Your task to perform on an android device: open app "DoorDash - Food Delivery" (install if not already installed) Image 0: 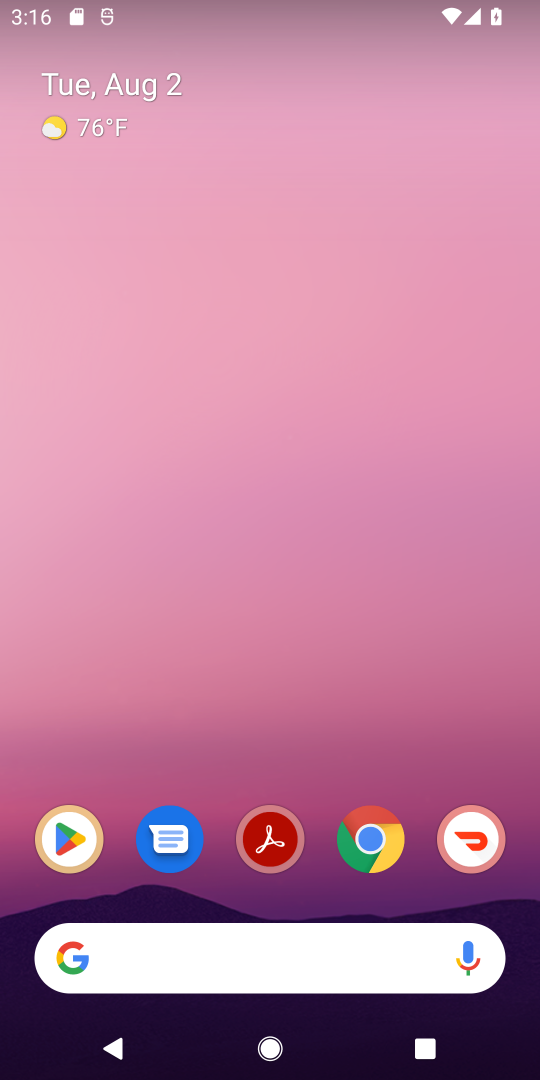
Step 0: click (479, 847)
Your task to perform on an android device: open app "DoorDash - Food Delivery" (install if not already installed) Image 1: 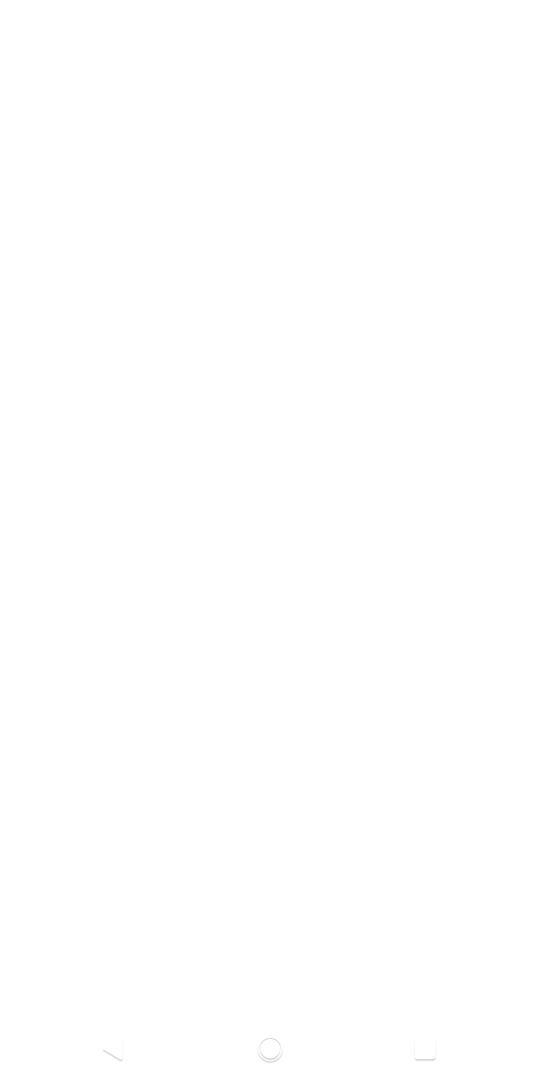
Step 1: task complete